Your task to perform on an android device: Go to notification settings Image 0: 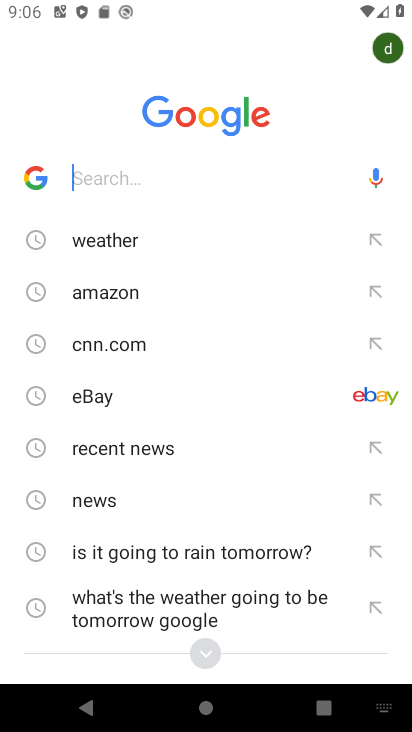
Step 0: press home button
Your task to perform on an android device: Go to notification settings Image 1: 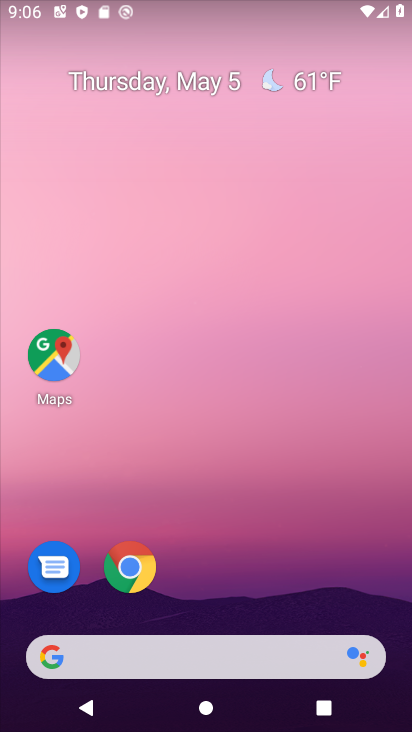
Step 1: drag from (232, 573) to (256, 159)
Your task to perform on an android device: Go to notification settings Image 2: 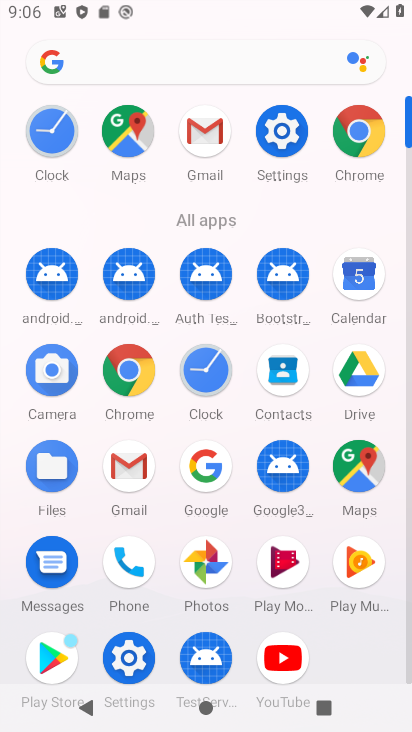
Step 2: click (284, 142)
Your task to perform on an android device: Go to notification settings Image 3: 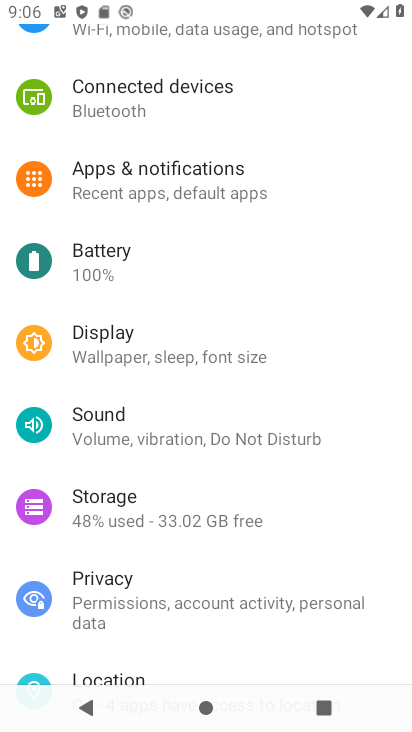
Step 3: click (170, 183)
Your task to perform on an android device: Go to notification settings Image 4: 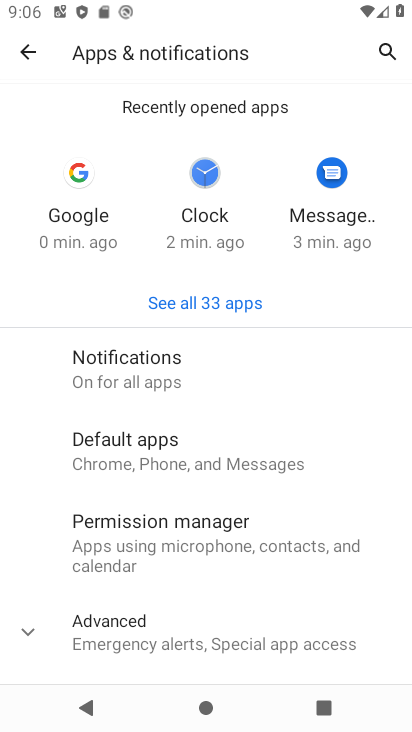
Step 4: task complete